Your task to perform on an android device: What is the news today? Image 0: 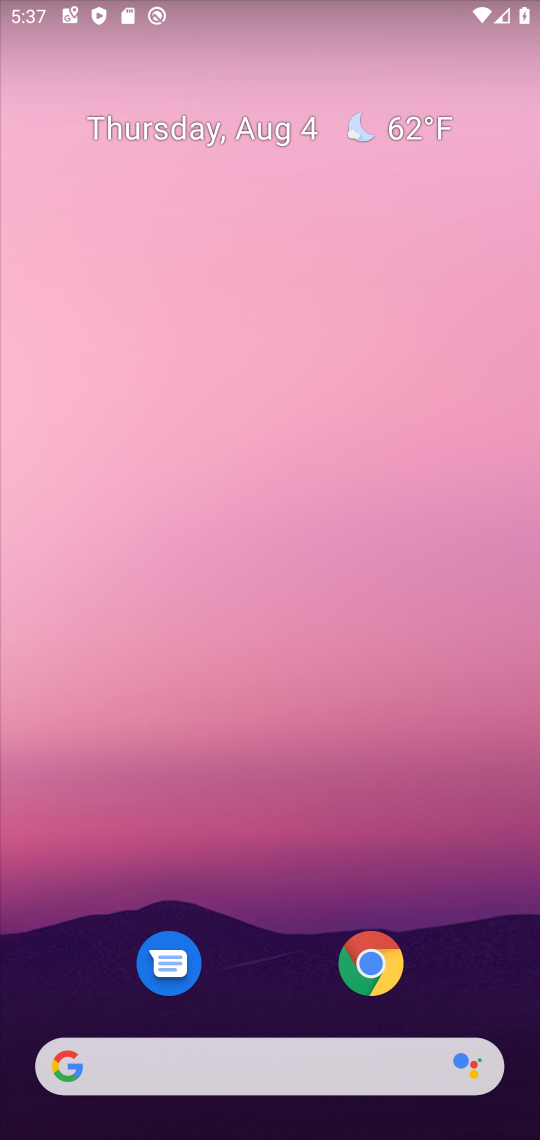
Step 0: drag from (32, 557) to (514, 561)
Your task to perform on an android device: What is the news today? Image 1: 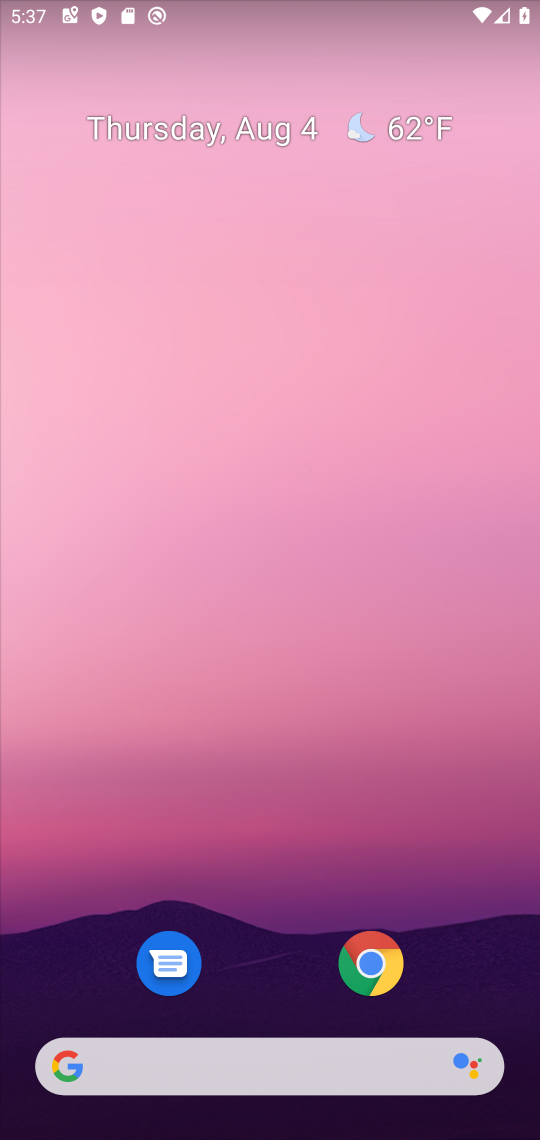
Step 1: drag from (22, 522) to (498, 546)
Your task to perform on an android device: What is the news today? Image 2: 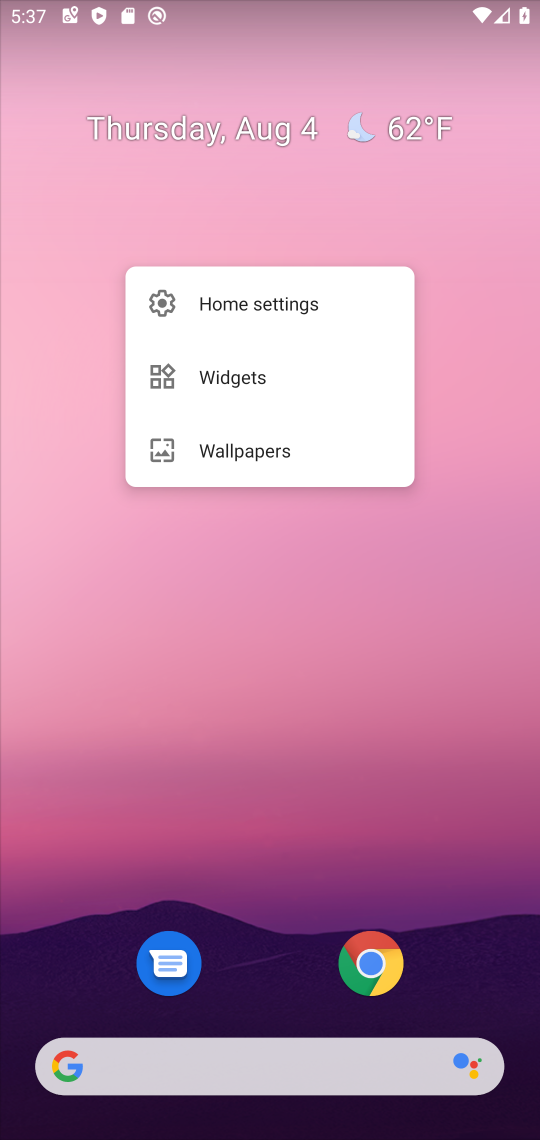
Step 2: click (408, 549)
Your task to perform on an android device: What is the news today? Image 3: 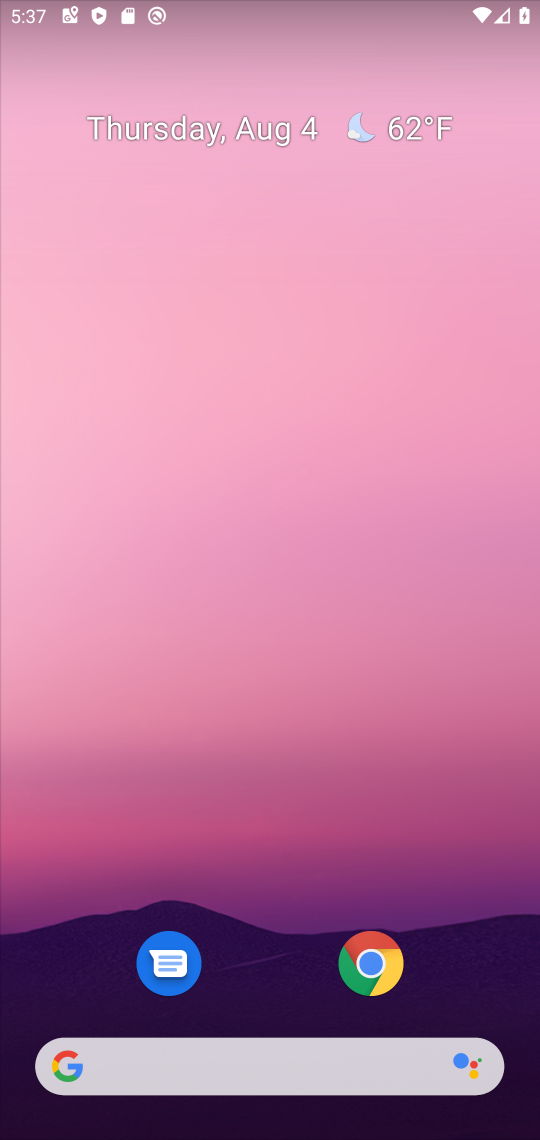
Step 3: drag from (15, 485) to (524, 481)
Your task to perform on an android device: What is the news today? Image 4: 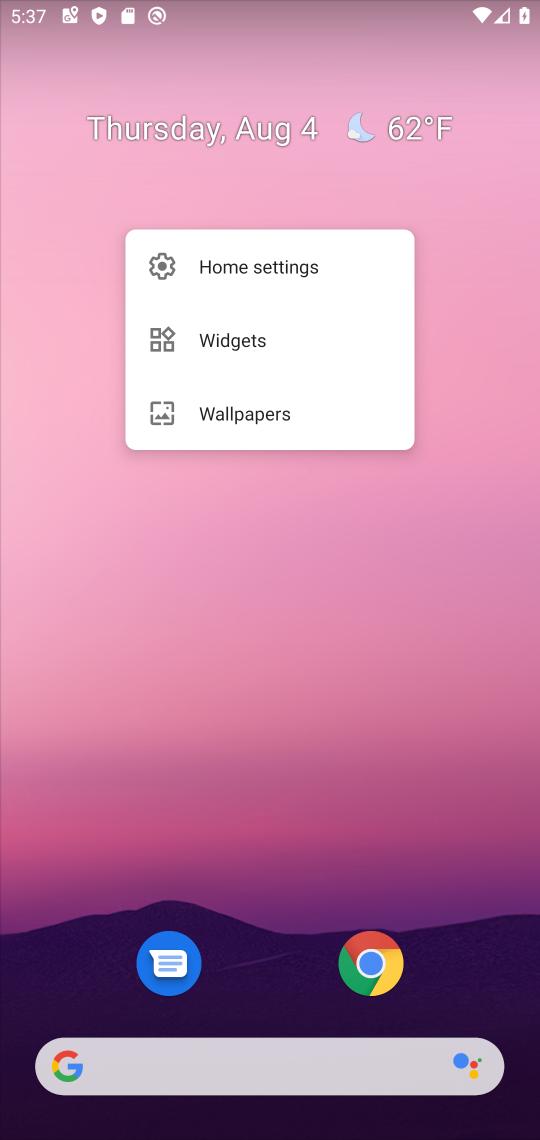
Step 4: click (337, 556)
Your task to perform on an android device: What is the news today? Image 5: 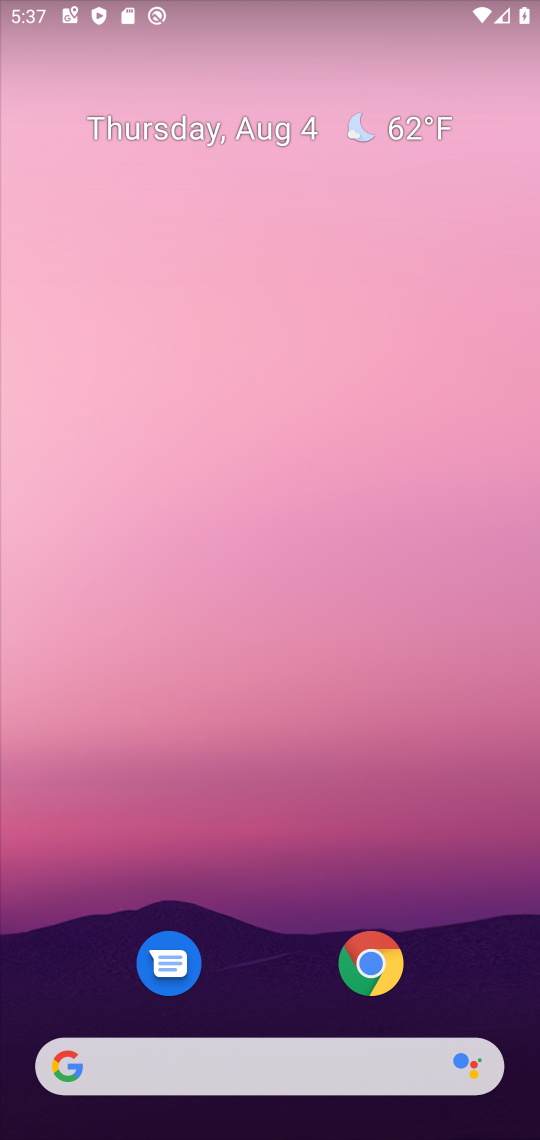
Step 5: task complete